Your task to perform on an android device: Open Yahoo.com Image 0: 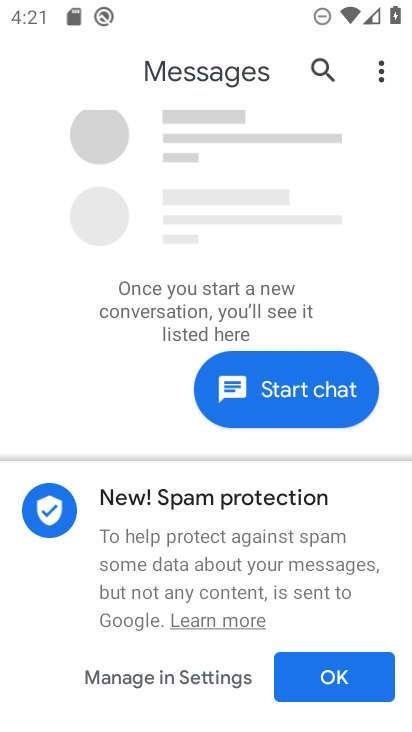
Step 0: press home button
Your task to perform on an android device: Open Yahoo.com Image 1: 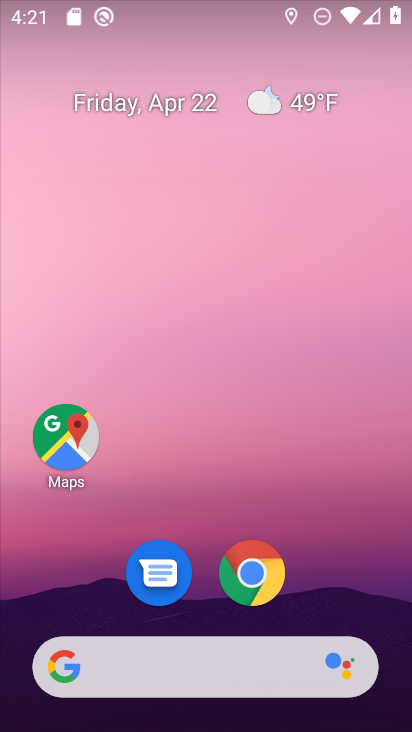
Step 1: click (259, 566)
Your task to perform on an android device: Open Yahoo.com Image 2: 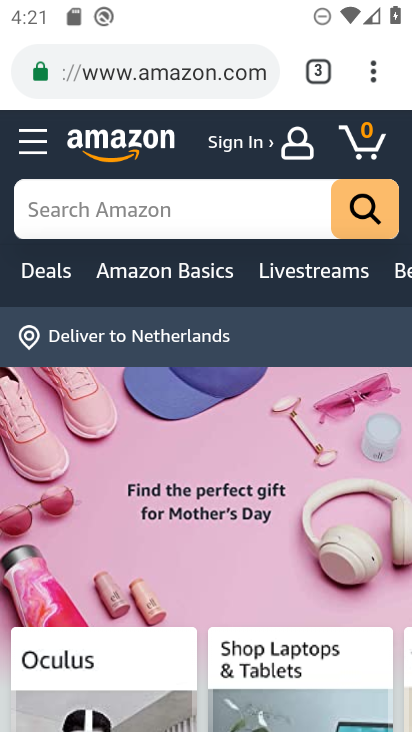
Step 2: click (325, 59)
Your task to perform on an android device: Open Yahoo.com Image 3: 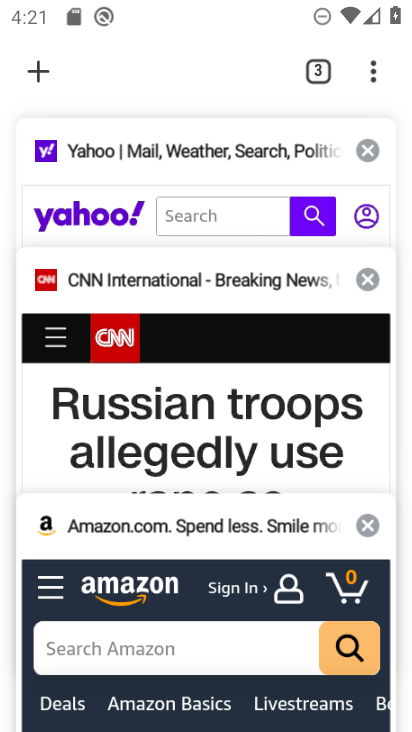
Step 3: click (107, 194)
Your task to perform on an android device: Open Yahoo.com Image 4: 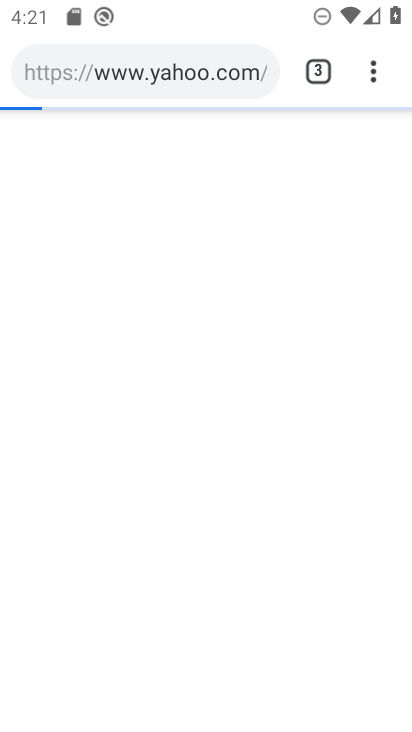
Step 4: task complete